Your task to perform on an android device: find which apps use the phone's location Image 0: 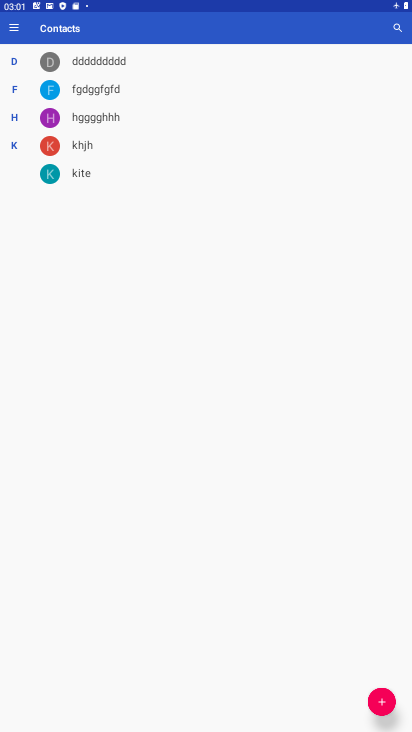
Step 0: press home button
Your task to perform on an android device: find which apps use the phone's location Image 1: 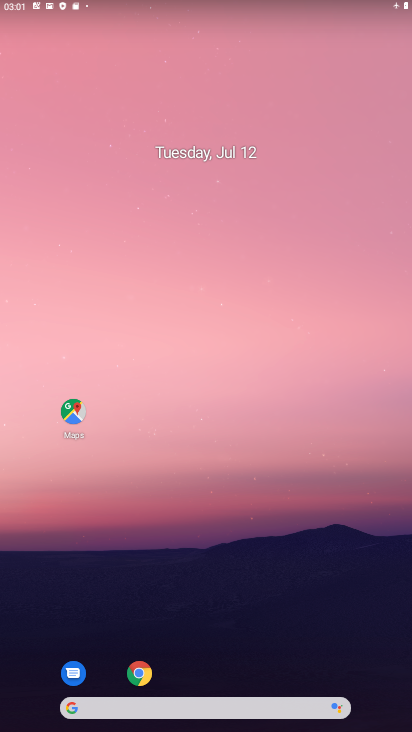
Step 1: drag from (222, 500) to (231, 61)
Your task to perform on an android device: find which apps use the phone's location Image 2: 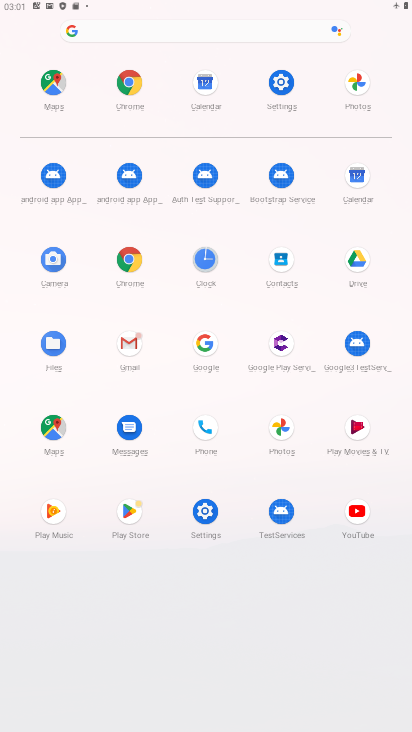
Step 2: click (279, 79)
Your task to perform on an android device: find which apps use the phone's location Image 3: 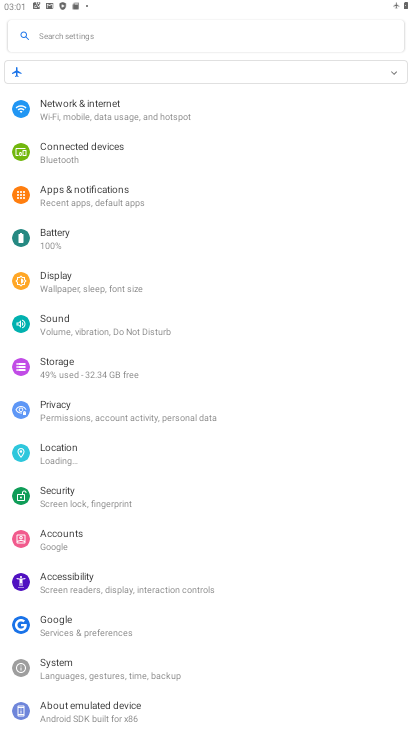
Step 3: click (77, 457)
Your task to perform on an android device: find which apps use the phone's location Image 4: 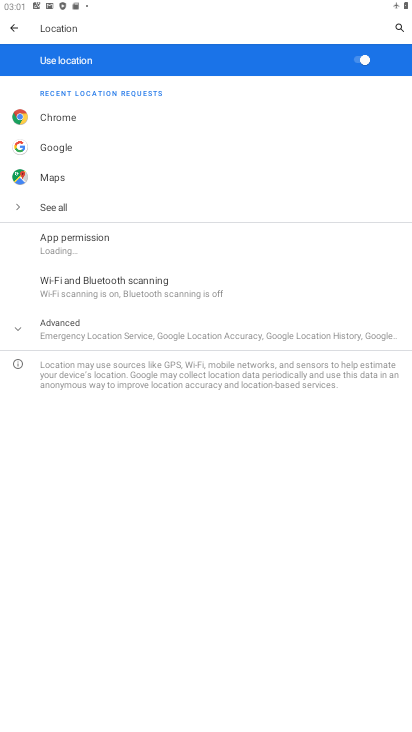
Step 4: click (94, 246)
Your task to perform on an android device: find which apps use the phone's location Image 5: 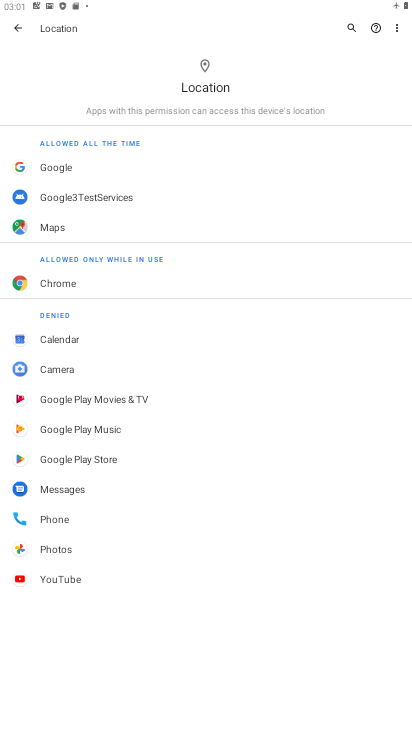
Step 5: task complete